Your task to perform on an android device: Open accessibility settings Image 0: 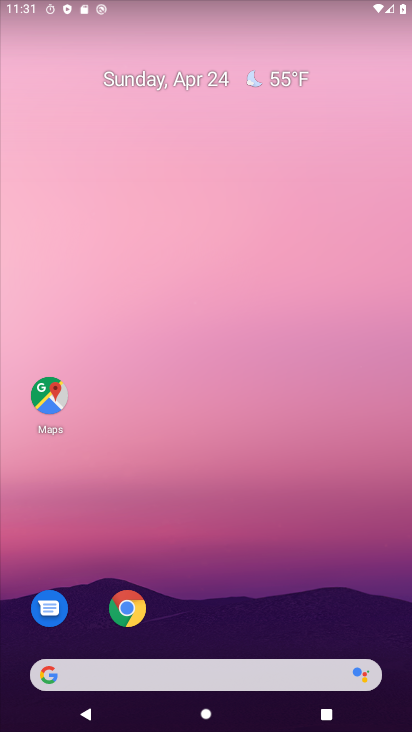
Step 0: drag from (262, 496) to (297, 197)
Your task to perform on an android device: Open accessibility settings Image 1: 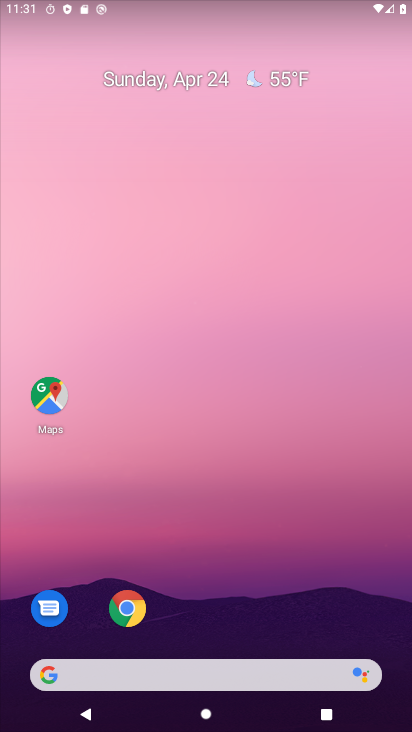
Step 1: drag from (244, 570) to (294, 67)
Your task to perform on an android device: Open accessibility settings Image 2: 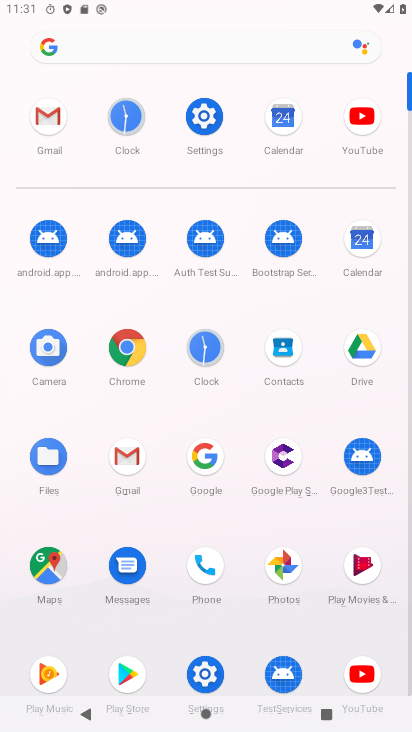
Step 2: click (205, 116)
Your task to perform on an android device: Open accessibility settings Image 3: 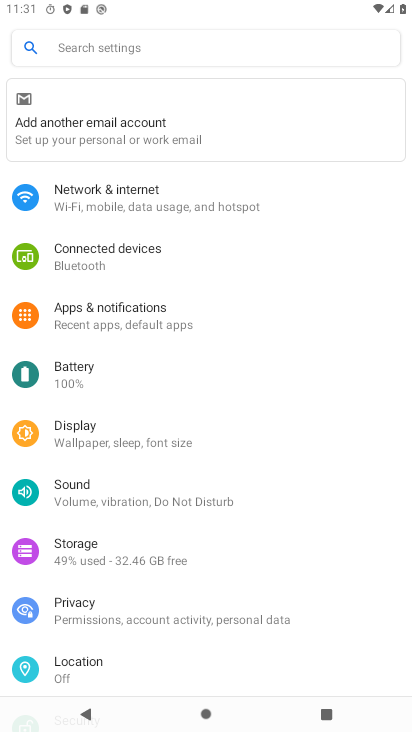
Step 3: drag from (135, 607) to (206, 143)
Your task to perform on an android device: Open accessibility settings Image 4: 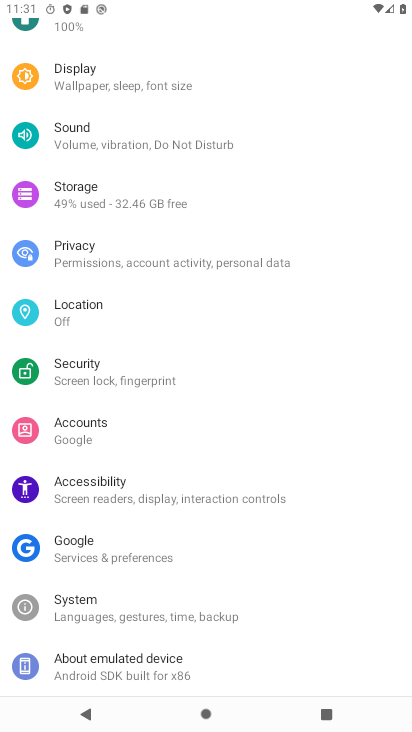
Step 4: click (85, 481)
Your task to perform on an android device: Open accessibility settings Image 5: 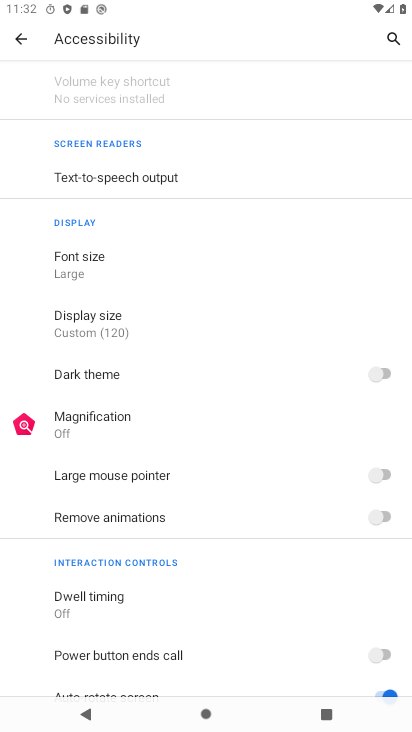
Step 5: task complete